Your task to perform on an android device: Is it going to rain today? Image 0: 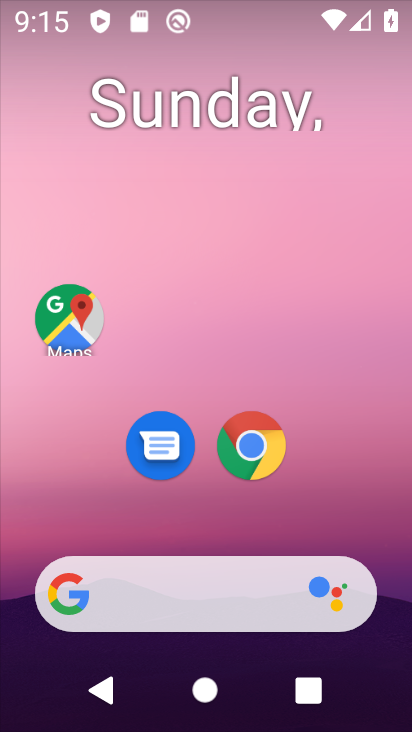
Step 0: drag from (0, 443) to (410, 332)
Your task to perform on an android device: Is it going to rain today? Image 1: 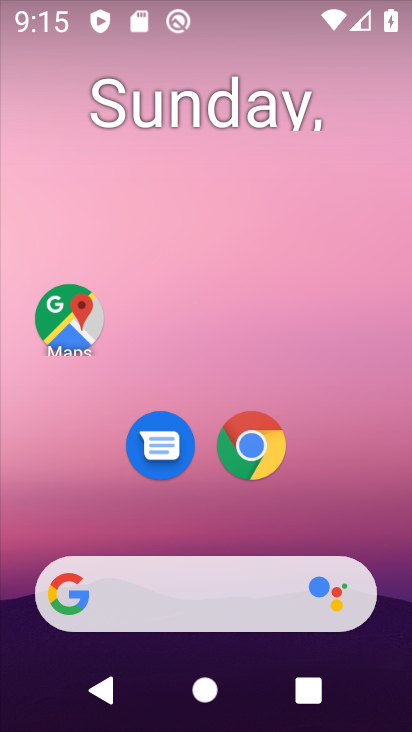
Step 1: drag from (2, 240) to (412, 236)
Your task to perform on an android device: Is it going to rain today? Image 2: 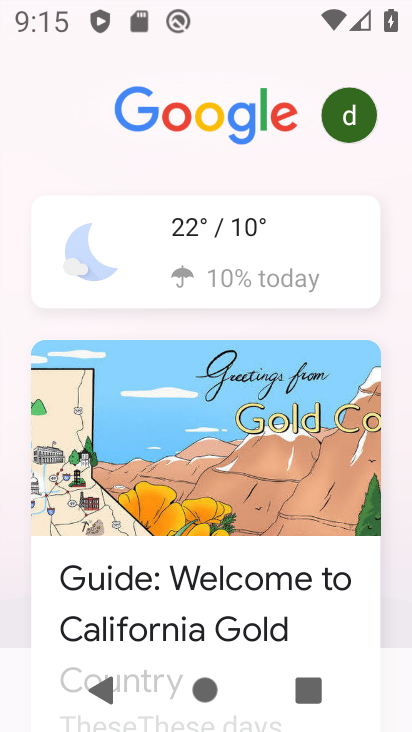
Step 2: click (270, 282)
Your task to perform on an android device: Is it going to rain today? Image 3: 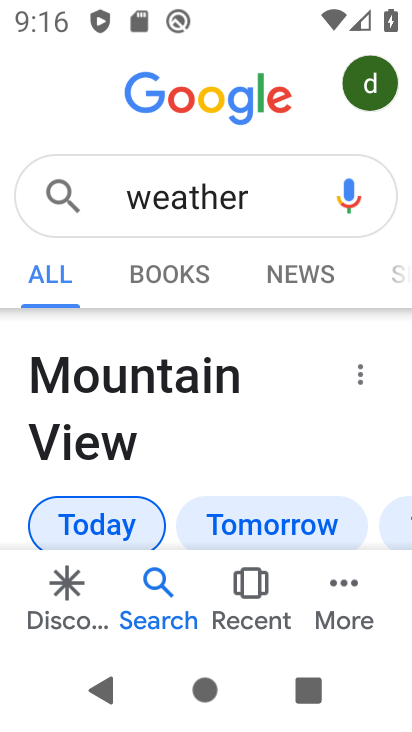
Step 3: task complete